Your task to perform on an android device: See recent photos Image 0: 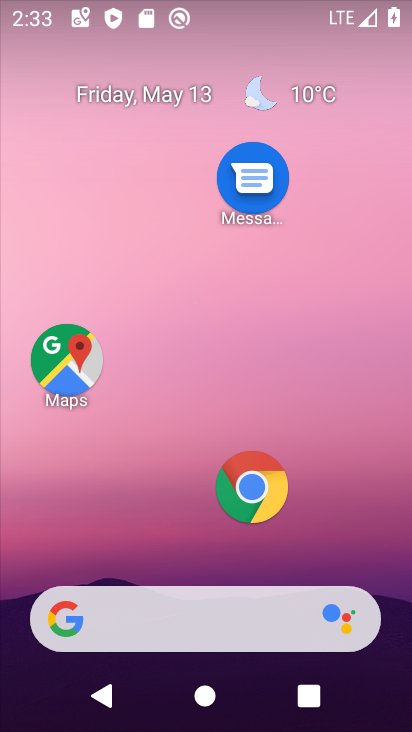
Step 0: click (60, 355)
Your task to perform on an android device: See recent photos Image 1: 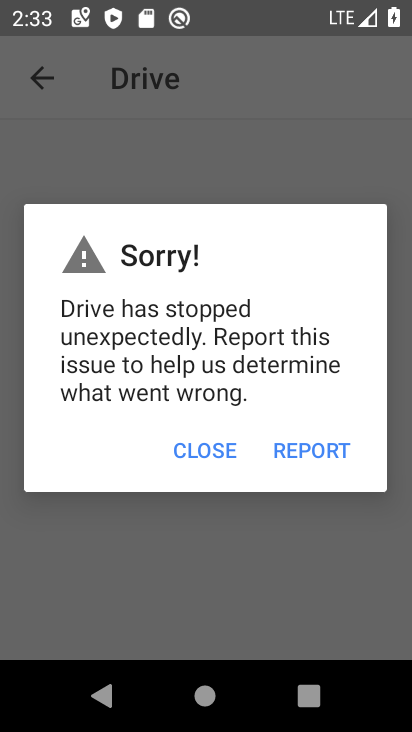
Step 1: press home button
Your task to perform on an android device: See recent photos Image 2: 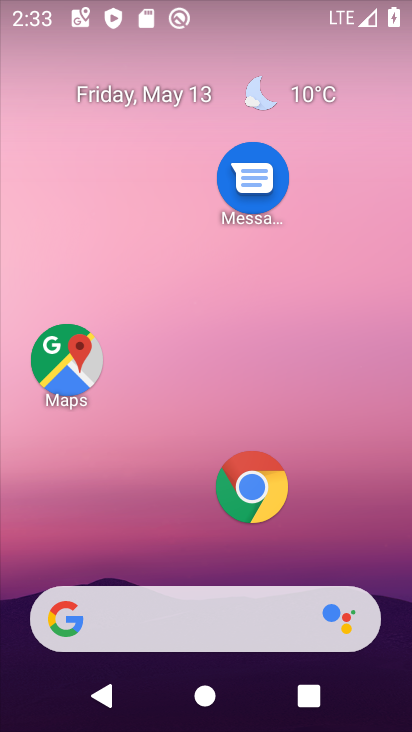
Step 2: drag from (146, 577) to (245, 145)
Your task to perform on an android device: See recent photos Image 3: 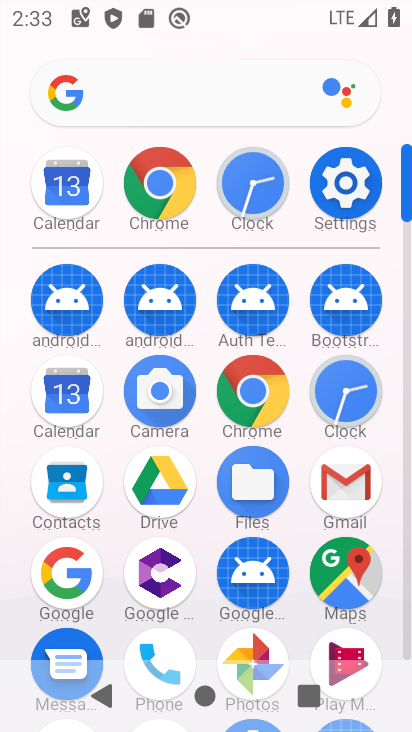
Step 3: click (253, 654)
Your task to perform on an android device: See recent photos Image 4: 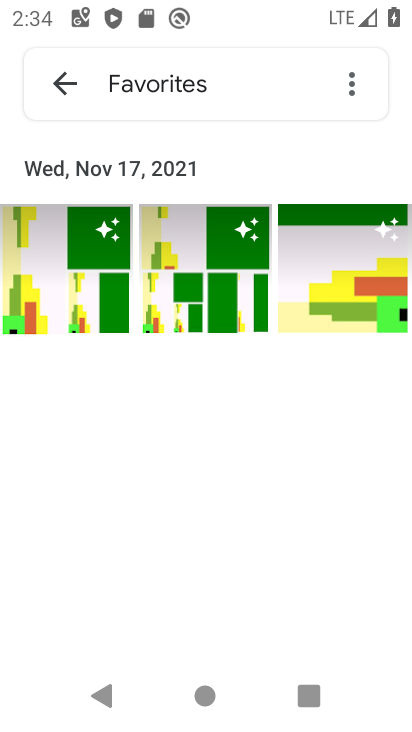
Step 4: task complete